Your task to perform on an android device: Open display settings Image 0: 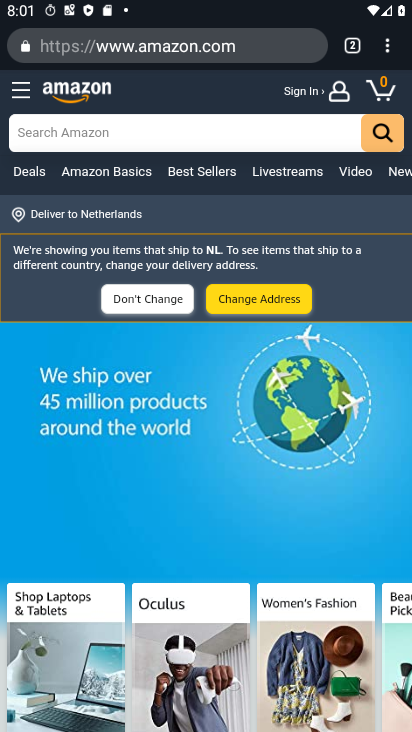
Step 0: press home button
Your task to perform on an android device: Open display settings Image 1: 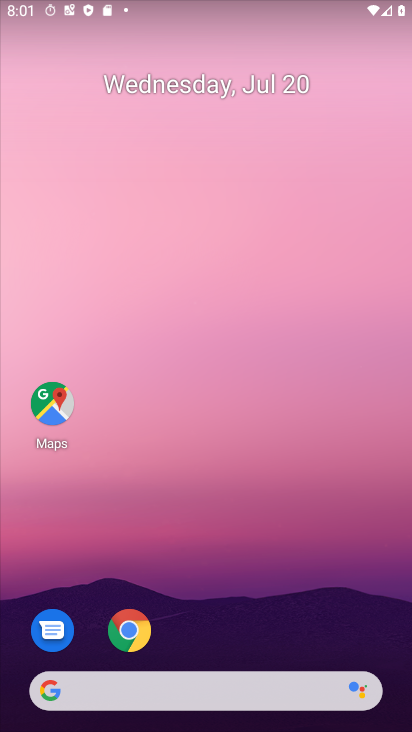
Step 1: drag from (227, 649) to (213, 231)
Your task to perform on an android device: Open display settings Image 2: 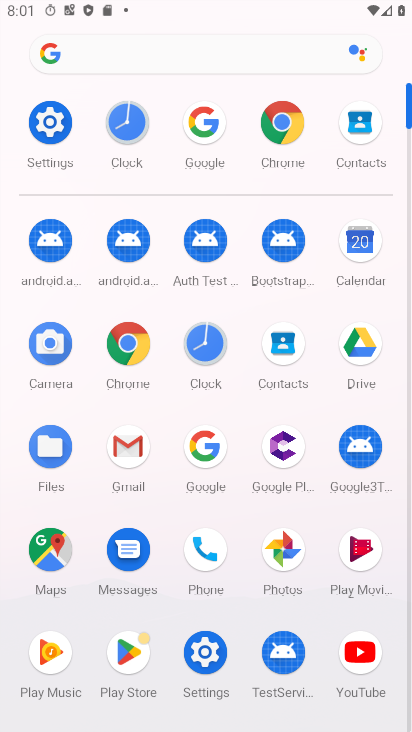
Step 2: click (56, 143)
Your task to perform on an android device: Open display settings Image 3: 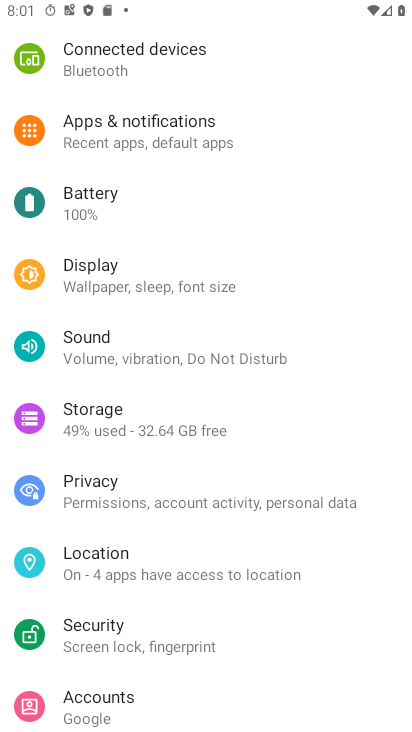
Step 3: click (206, 289)
Your task to perform on an android device: Open display settings Image 4: 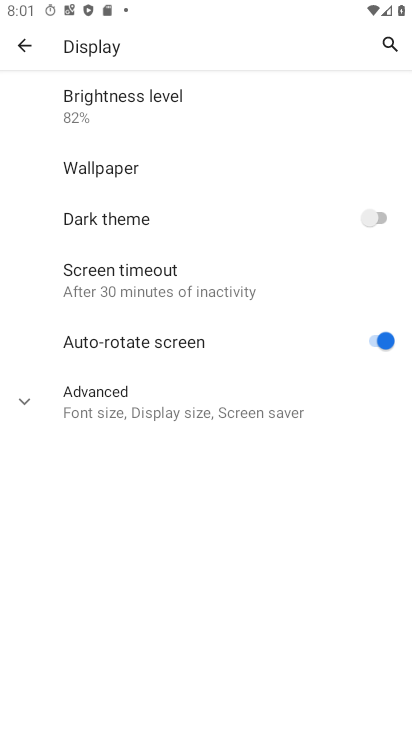
Step 4: click (206, 289)
Your task to perform on an android device: Open display settings Image 5: 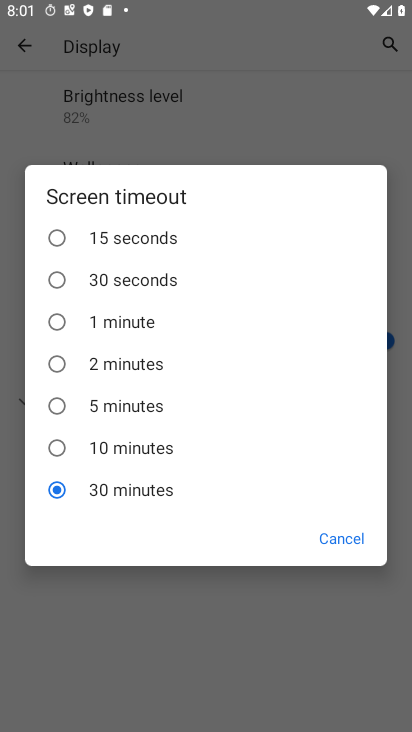
Step 5: task complete